Your task to perform on an android device: Go to Maps Image 0: 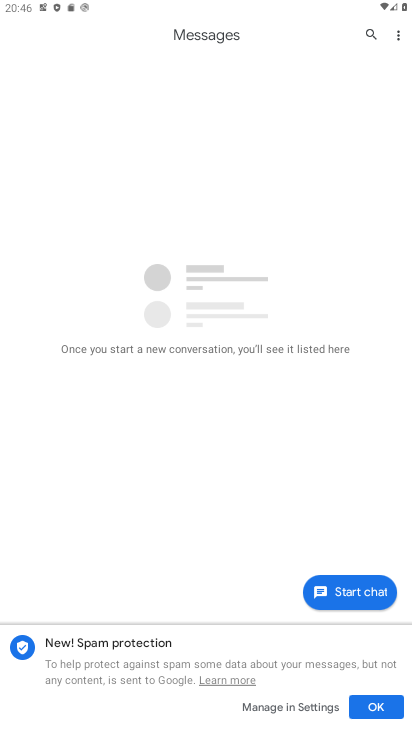
Step 0: press home button
Your task to perform on an android device: Go to Maps Image 1: 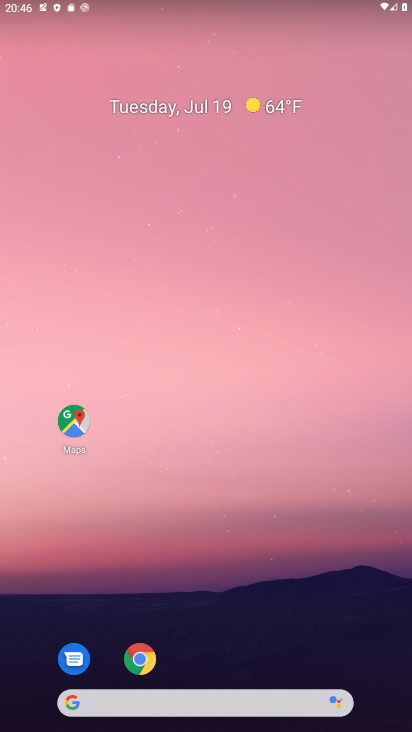
Step 1: click (89, 411)
Your task to perform on an android device: Go to Maps Image 2: 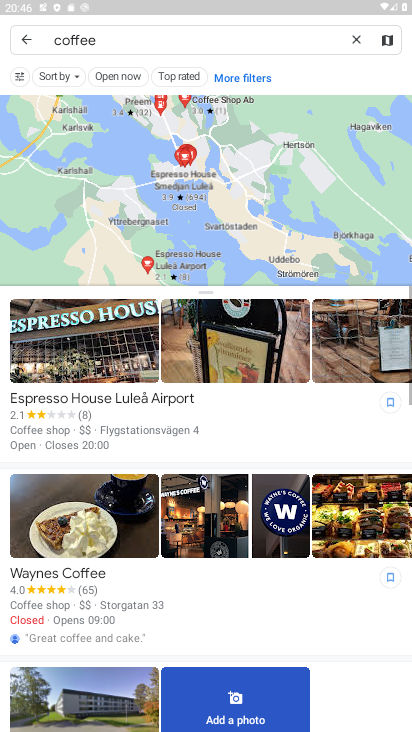
Step 2: task complete